Your task to perform on an android device: find which apps use the phone's location Image 0: 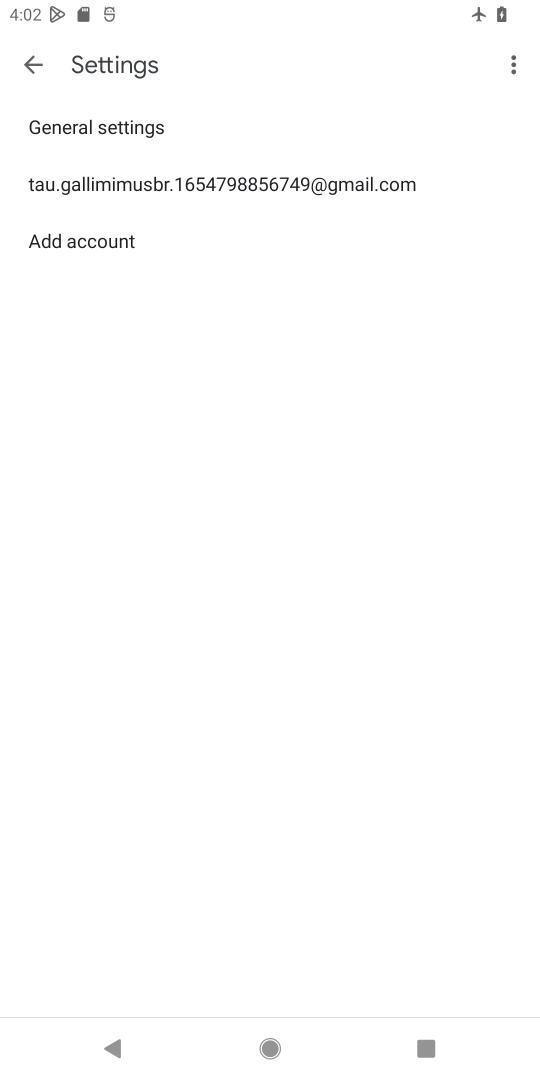
Step 0: press home button
Your task to perform on an android device: find which apps use the phone's location Image 1: 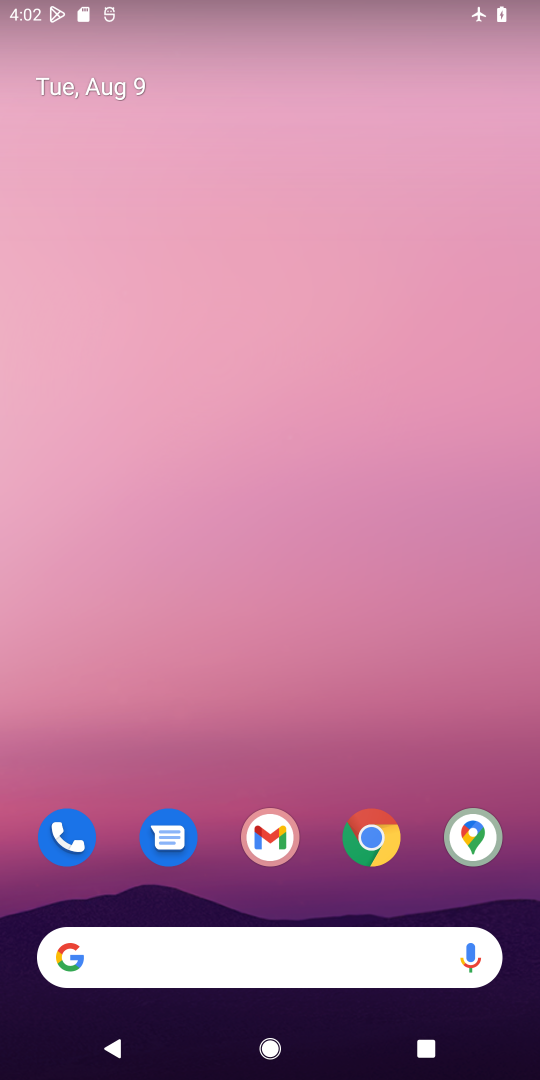
Step 1: drag from (226, 986) to (249, 372)
Your task to perform on an android device: find which apps use the phone's location Image 2: 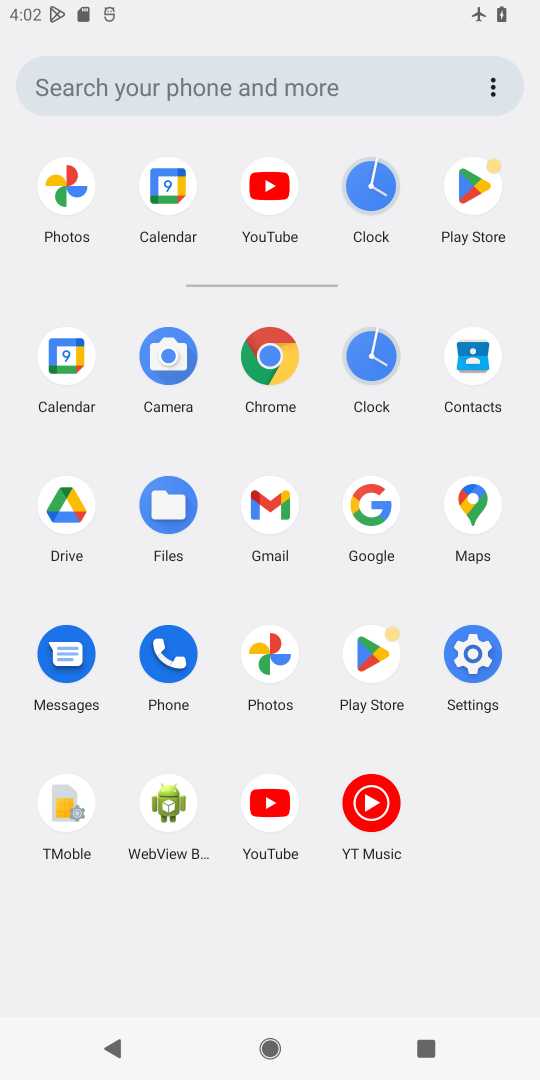
Step 2: click (474, 675)
Your task to perform on an android device: find which apps use the phone's location Image 3: 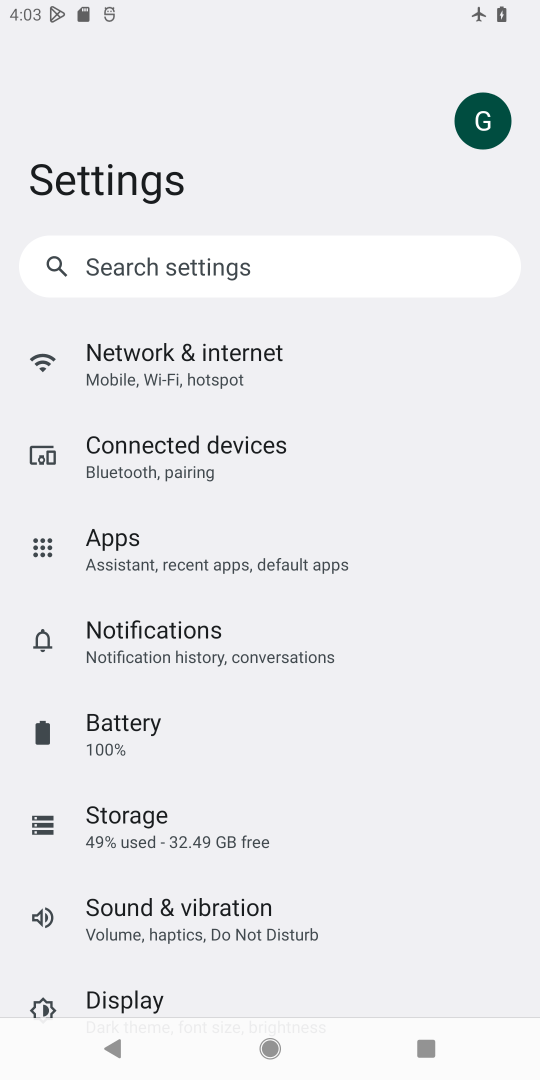
Step 3: drag from (238, 894) to (228, 260)
Your task to perform on an android device: find which apps use the phone's location Image 4: 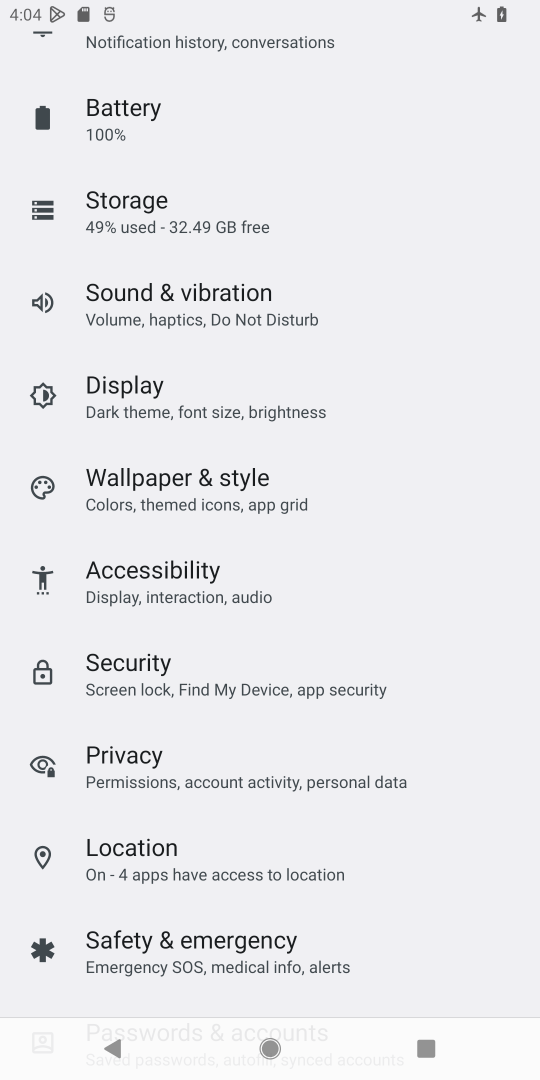
Step 4: click (161, 834)
Your task to perform on an android device: find which apps use the phone's location Image 5: 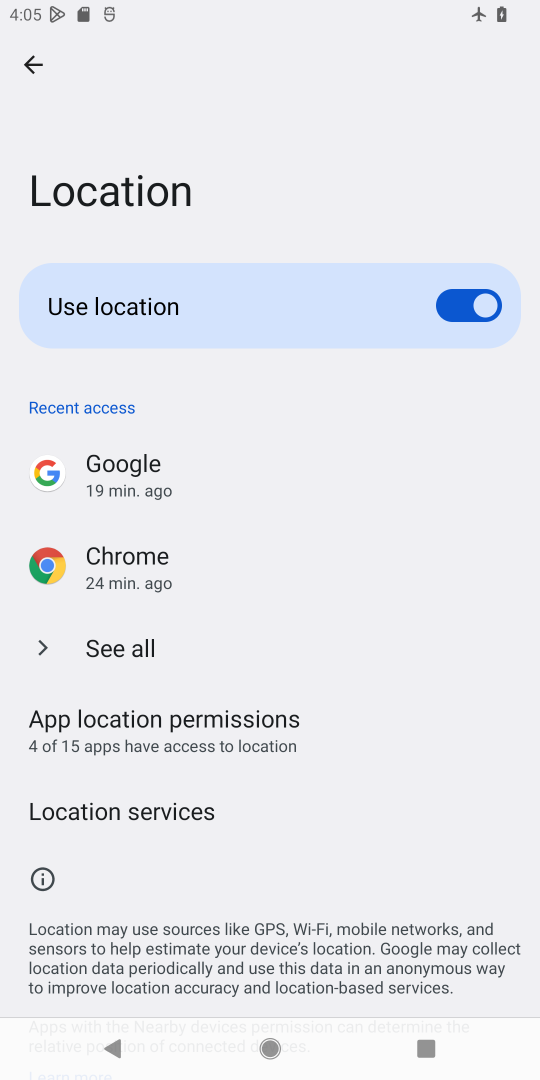
Step 5: task complete